Your task to perform on an android device: refresh tabs in the chrome app Image 0: 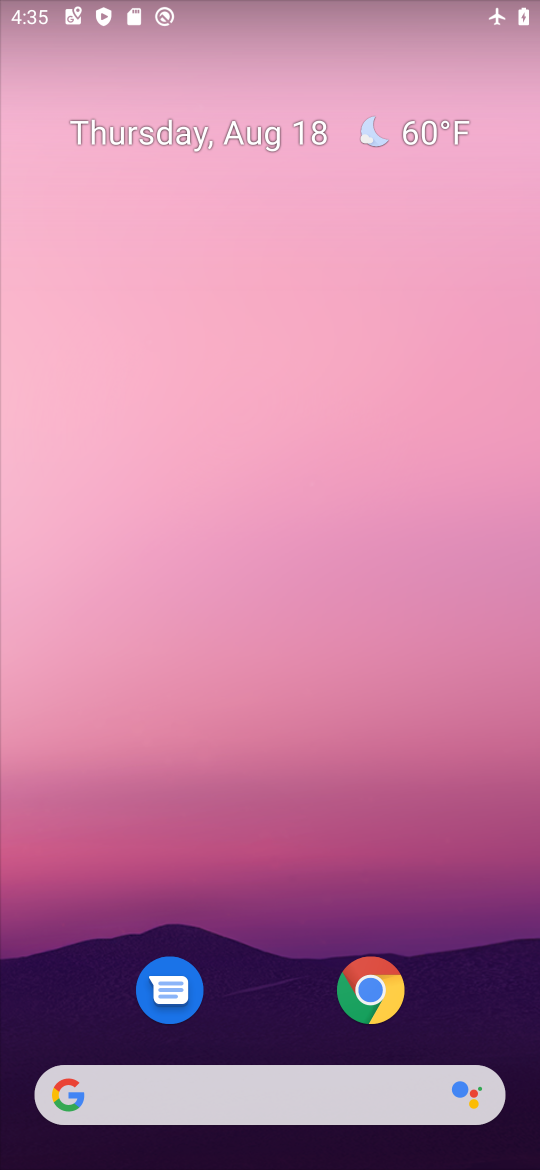
Step 0: drag from (237, 1013) to (353, 218)
Your task to perform on an android device: refresh tabs in the chrome app Image 1: 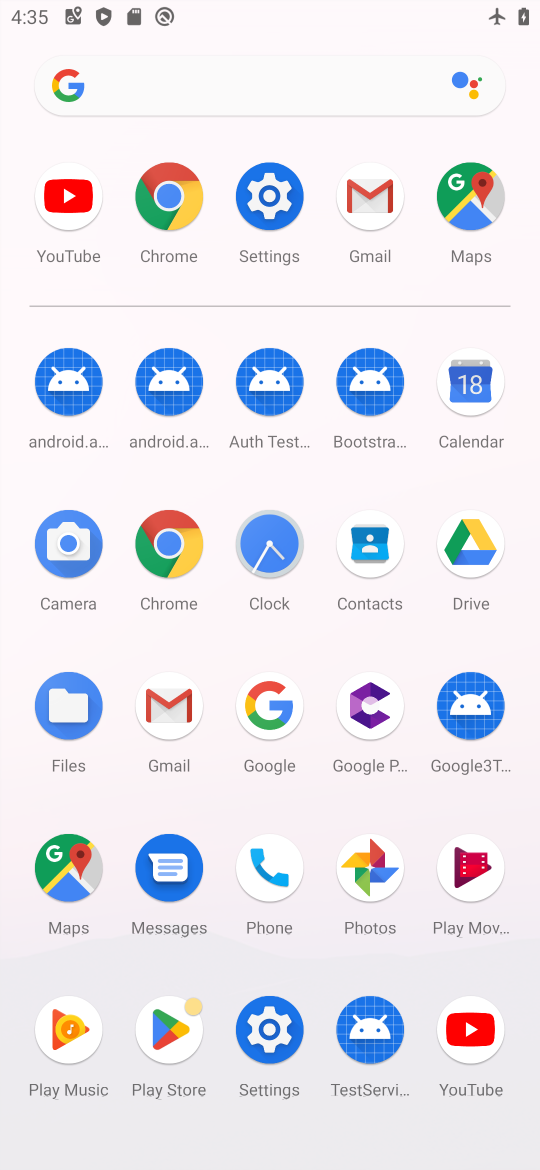
Step 1: click (171, 539)
Your task to perform on an android device: refresh tabs in the chrome app Image 2: 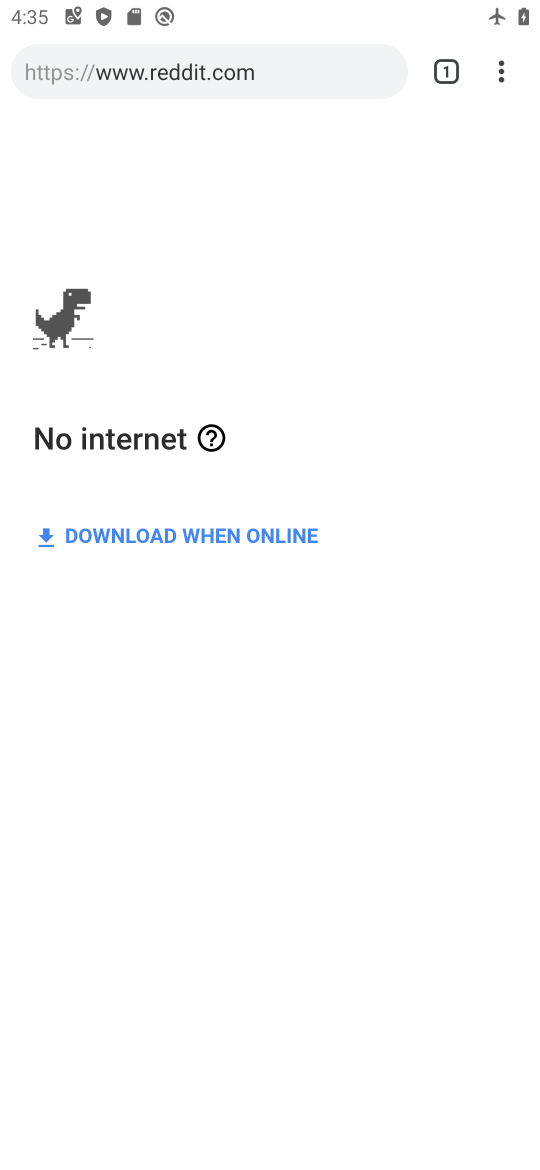
Step 2: click (503, 46)
Your task to perform on an android device: refresh tabs in the chrome app Image 3: 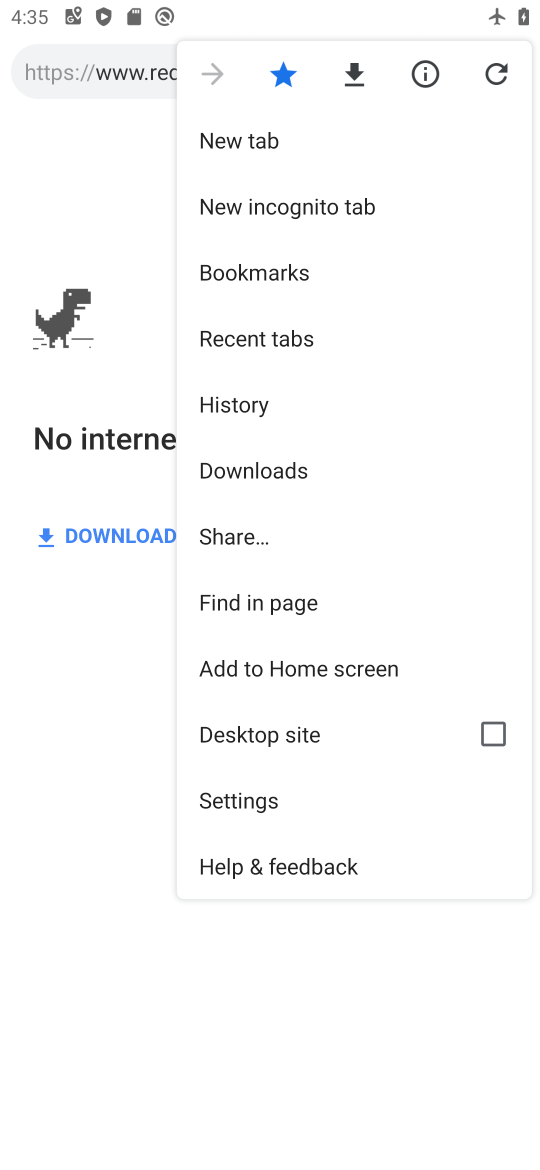
Step 3: click (502, 60)
Your task to perform on an android device: refresh tabs in the chrome app Image 4: 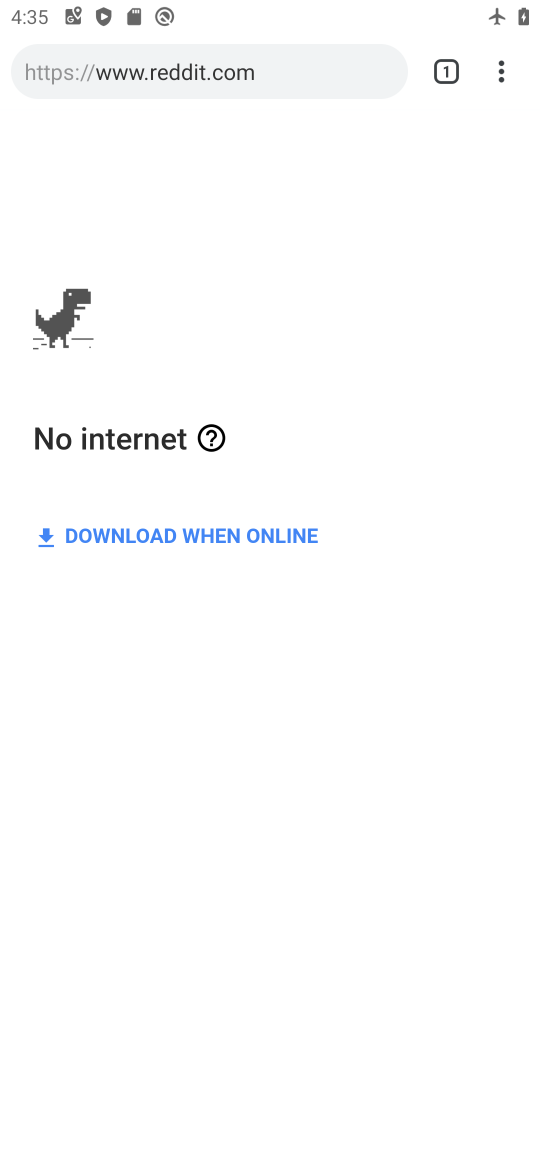
Step 4: task complete